Your task to perform on an android device: Open maps Image 0: 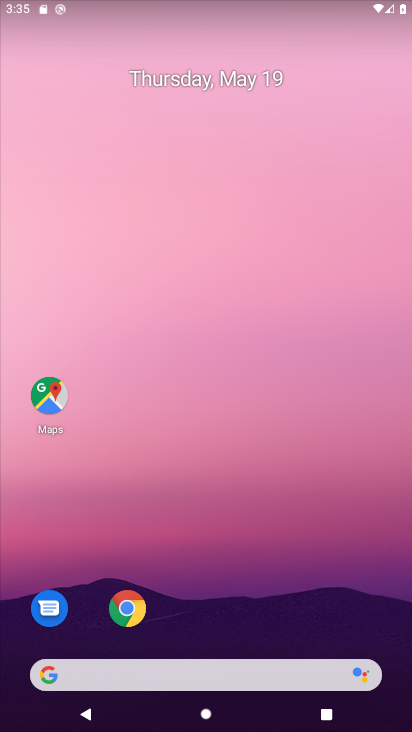
Step 0: click (57, 387)
Your task to perform on an android device: Open maps Image 1: 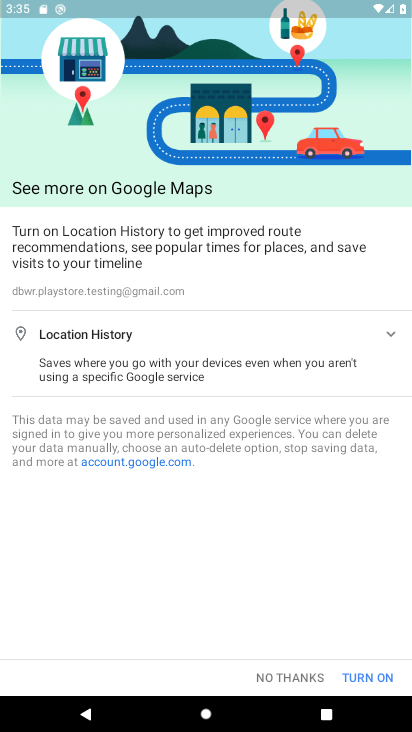
Step 1: press home button
Your task to perform on an android device: Open maps Image 2: 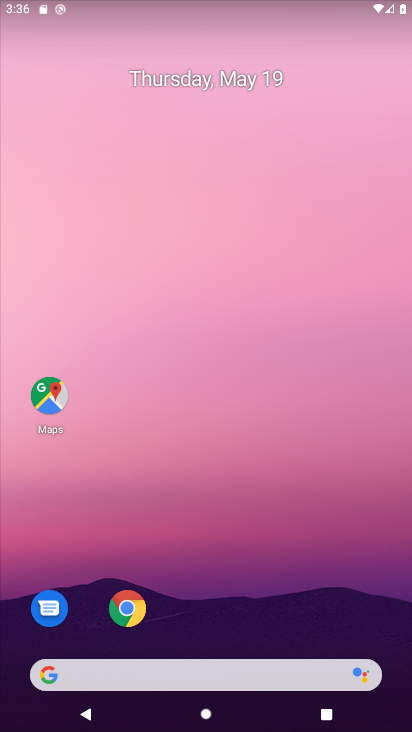
Step 2: click (41, 394)
Your task to perform on an android device: Open maps Image 3: 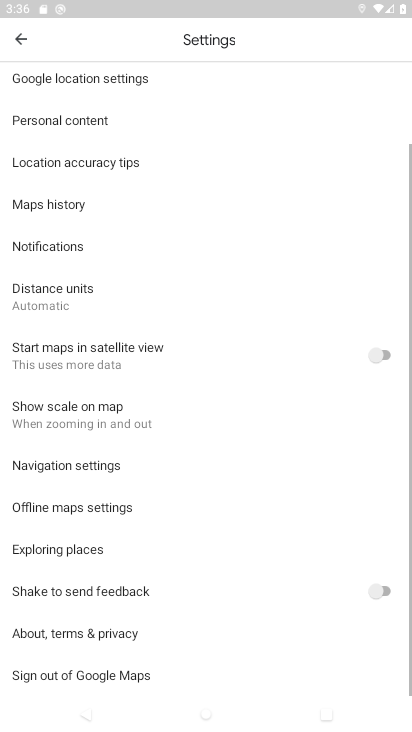
Step 3: click (24, 40)
Your task to perform on an android device: Open maps Image 4: 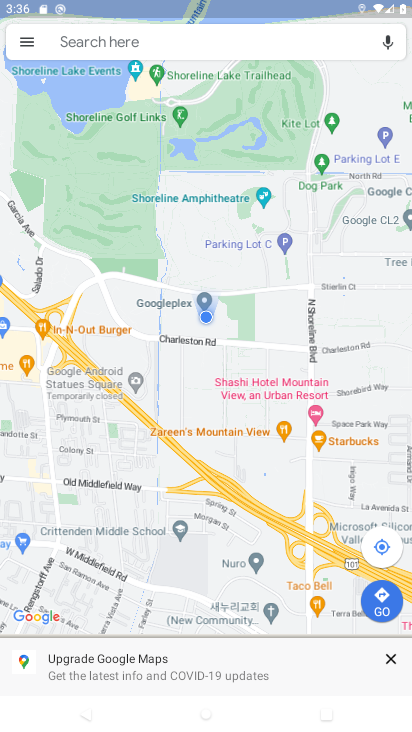
Step 4: task complete